Your task to perform on an android device: Show me productivity apps on the Play Store Image 0: 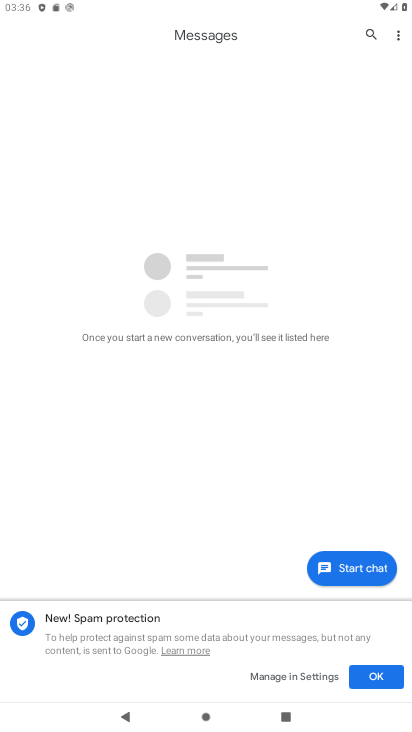
Step 0: press home button
Your task to perform on an android device: Show me productivity apps on the Play Store Image 1: 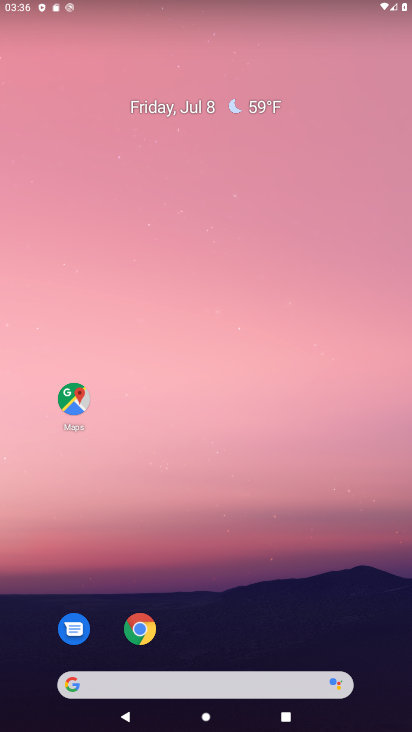
Step 1: drag from (213, 652) to (219, 73)
Your task to perform on an android device: Show me productivity apps on the Play Store Image 2: 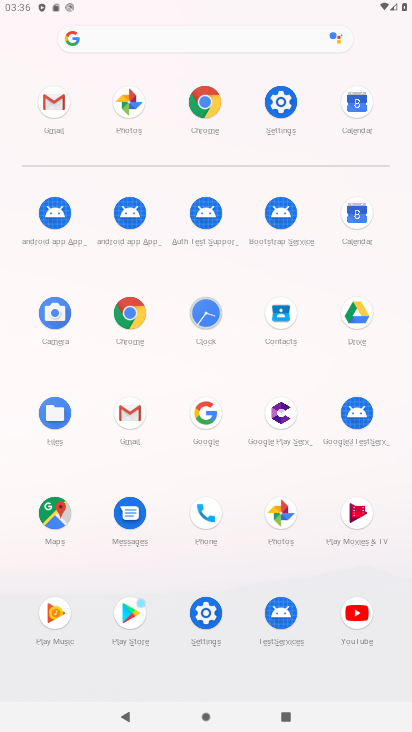
Step 2: click (126, 609)
Your task to perform on an android device: Show me productivity apps on the Play Store Image 3: 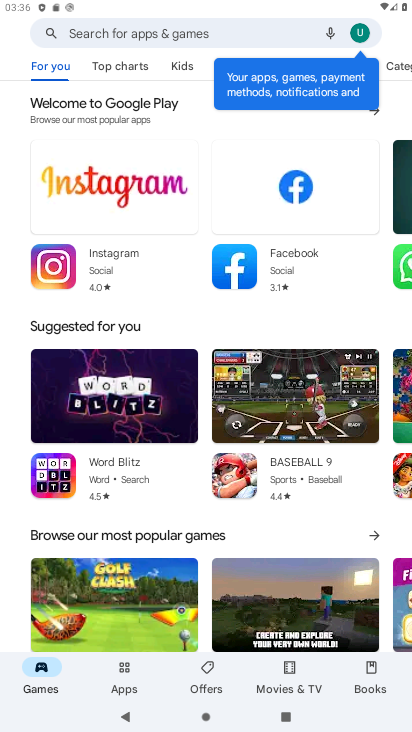
Step 3: click (123, 670)
Your task to perform on an android device: Show me productivity apps on the Play Store Image 4: 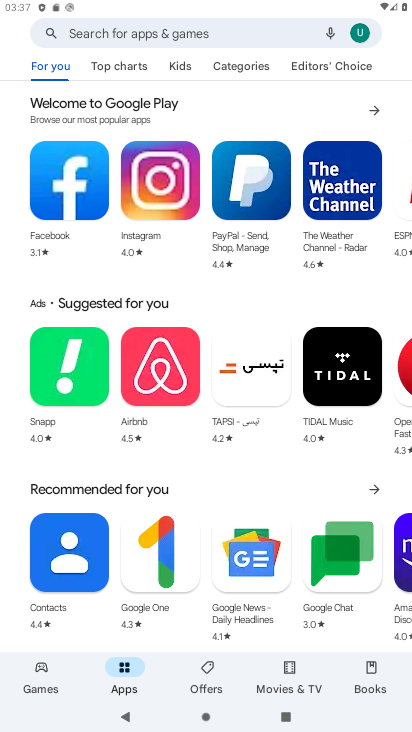
Step 4: click (239, 65)
Your task to perform on an android device: Show me productivity apps on the Play Store Image 5: 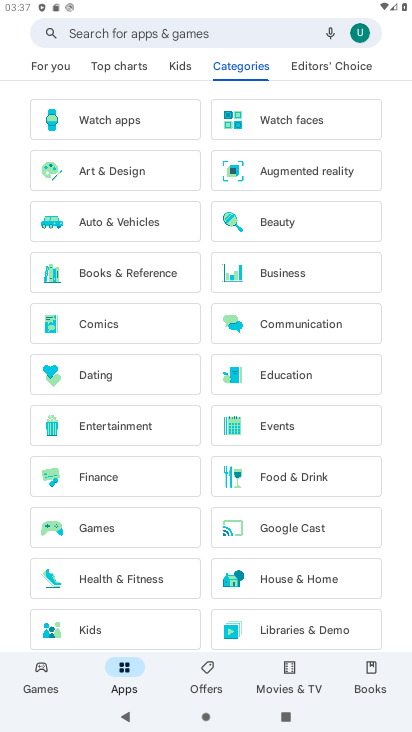
Step 5: drag from (197, 591) to (217, 273)
Your task to perform on an android device: Show me productivity apps on the Play Store Image 6: 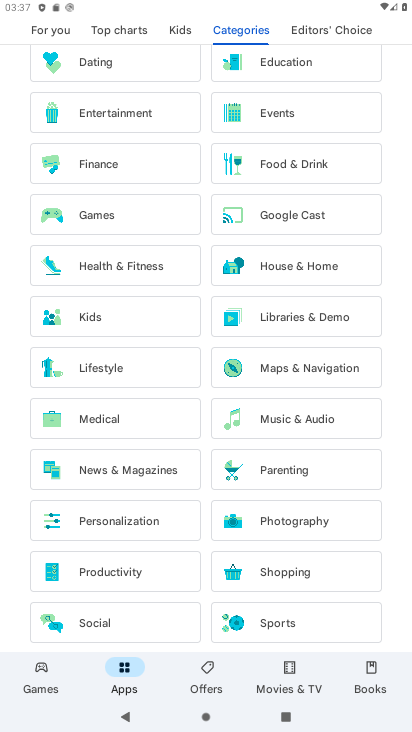
Step 6: click (151, 573)
Your task to perform on an android device: Show me productivity apps on the Play Store Image 7: 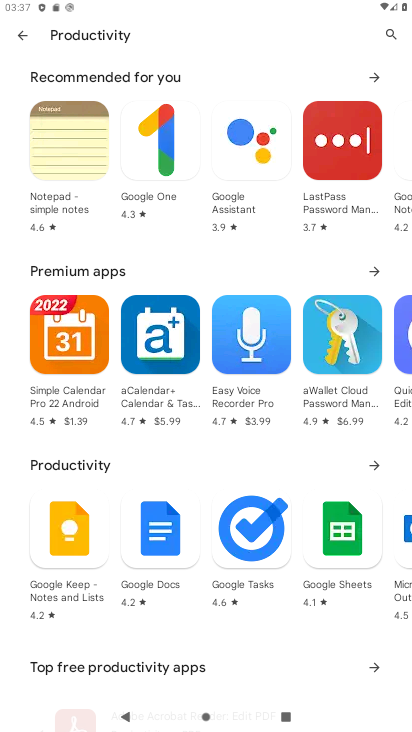
Step 7: task complete